Your task to perform on an android device: Open Yahoo.com Image 0: 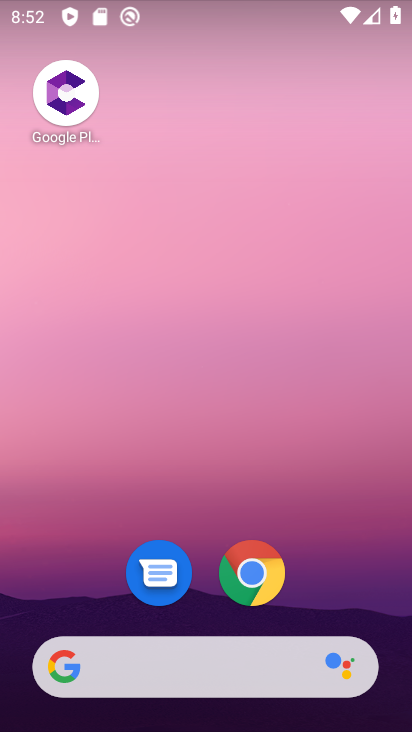
Step 0: drag from (388, 610) to (378, 274)
Your task to perform on an android device: Open Yahoo.com Image 1: 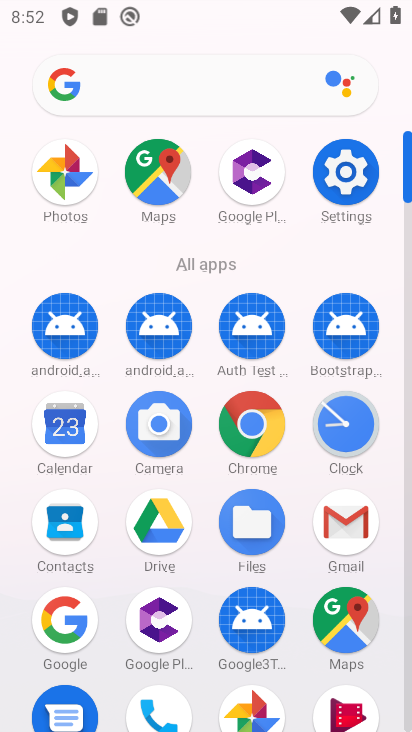
Step 1: click (253, 433)
Your task to perform on an android device: Open Yahoo.com Image 2: 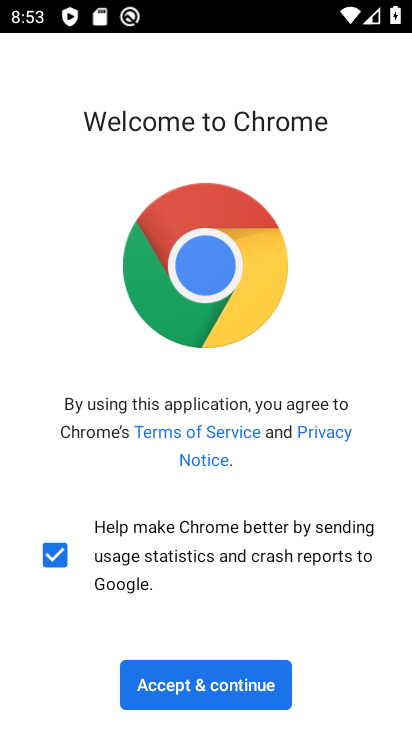
Step 2: click (265, 690)
Your task to perform on an android device: Open Yahoo.com Image 3: 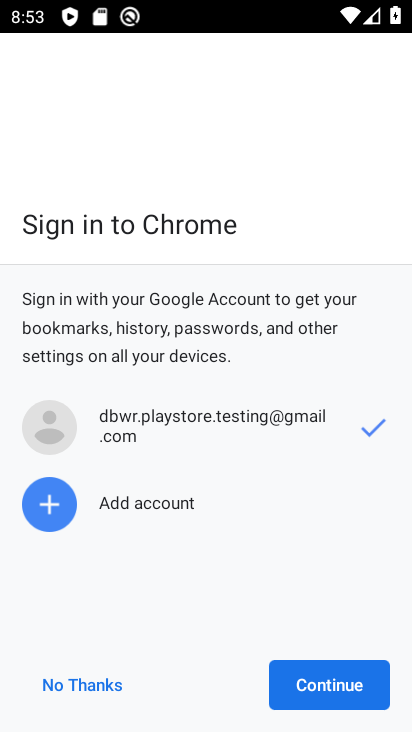
Step 3: click (288, 690)
Your task to perform on an android device: Open Yahoo.com Image 4: 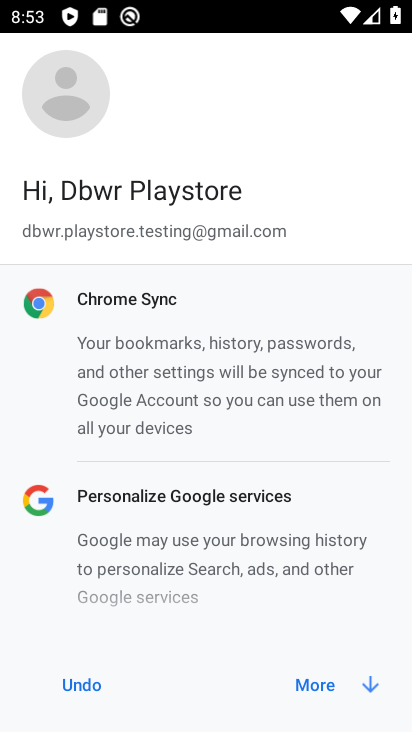
Step 4: click (288, 690)
Your task to perform on an android device: Open Yahoo.com Image 5: 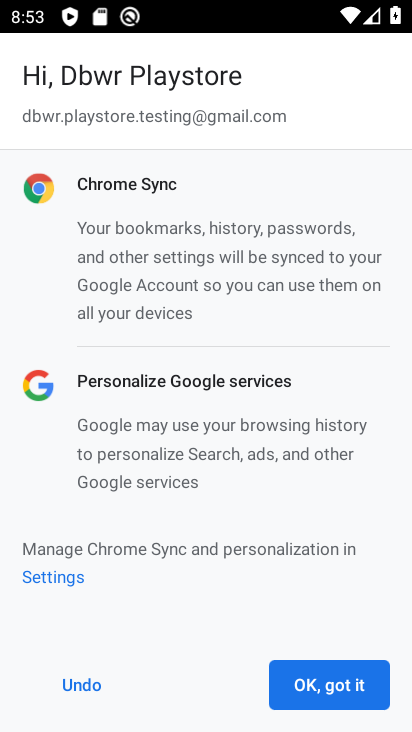
Step 5: click (288, 690)
Your task to perform on an android device: Open Yahoo.com Image 6: 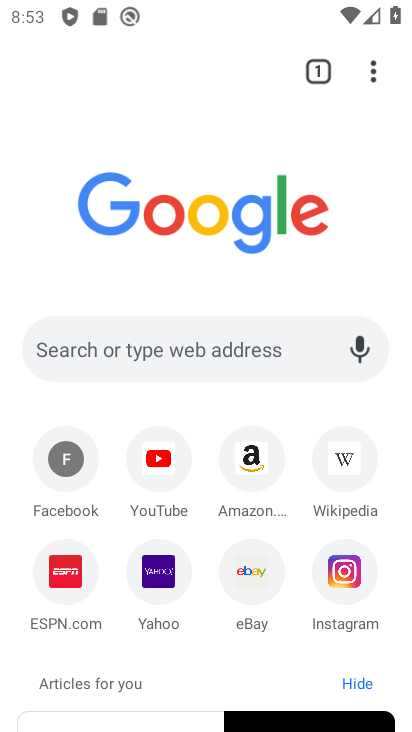
Step 6: click (163, 572)
Your task to perform on an android device: Open Yahoo.com Image 7: 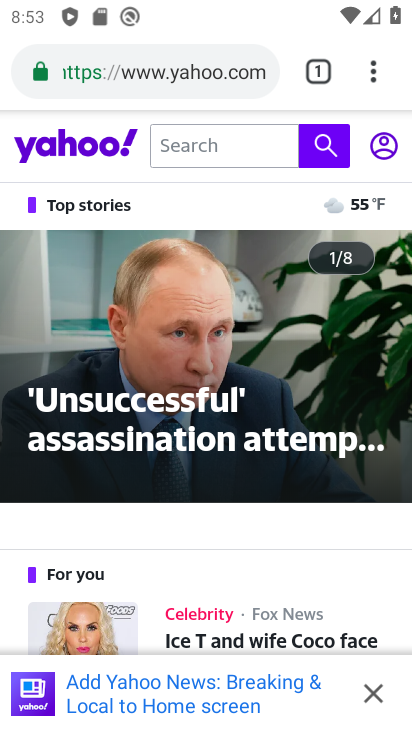
Step 7: task complete